Your task to perform on an android device: snooze an email in the gmail app Image 0: 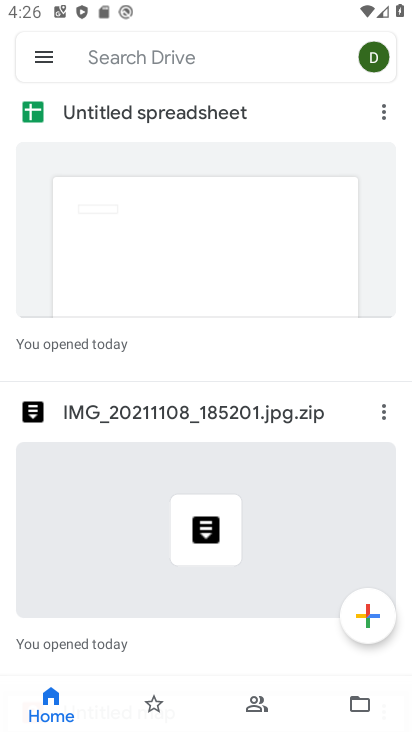
Step 0: press home button
Your task to perform on an android device: snooze an email in the gmail app Image 1: 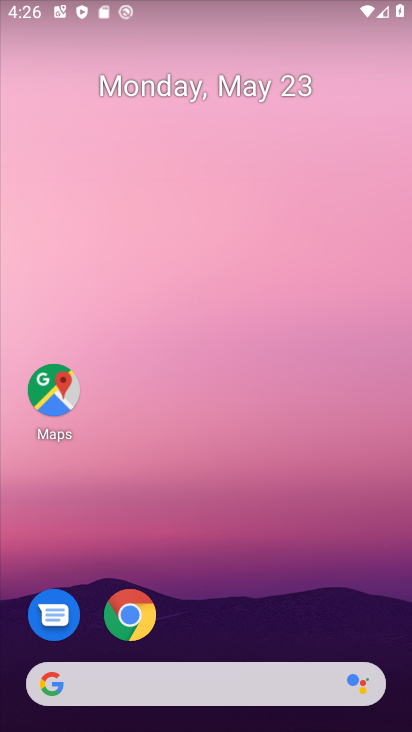
Step 1: drag from (238, 581) to (244, 138)
Your task to perform on an android device: snooze an email in the gmail app Image 2: 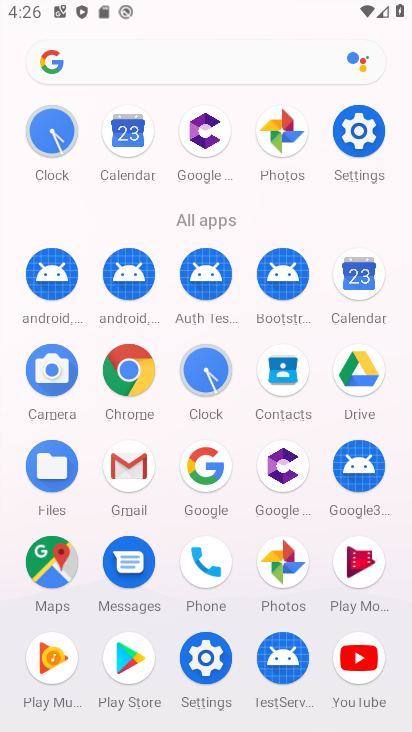
Step 2: click (131, 459)
Your task to perform on an android device: snooze an email in the gmail app Image 3: 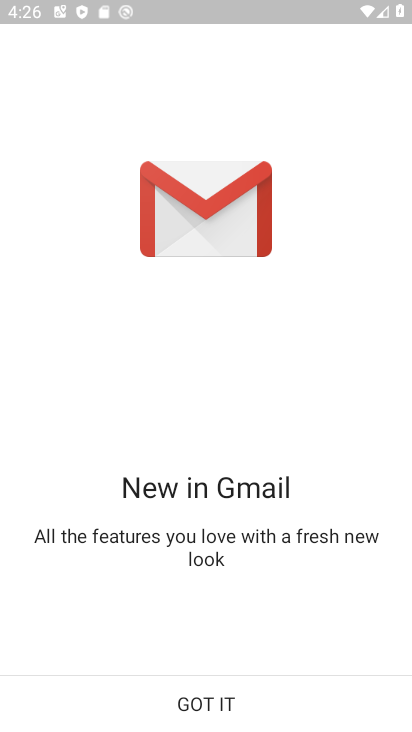
Step 3: click (229, 690)
Your task to perform on an android device: snooze an email in the gmail app Image 4: 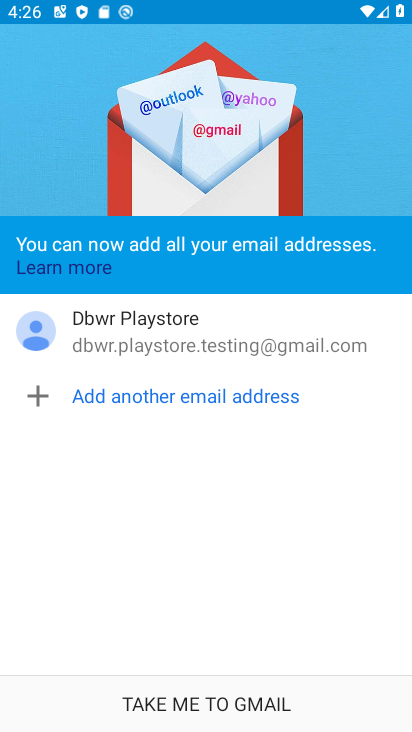
Step 4: click (229, 690)
Your task to perform on an android device: snooze an email in the gmail app Image 5: 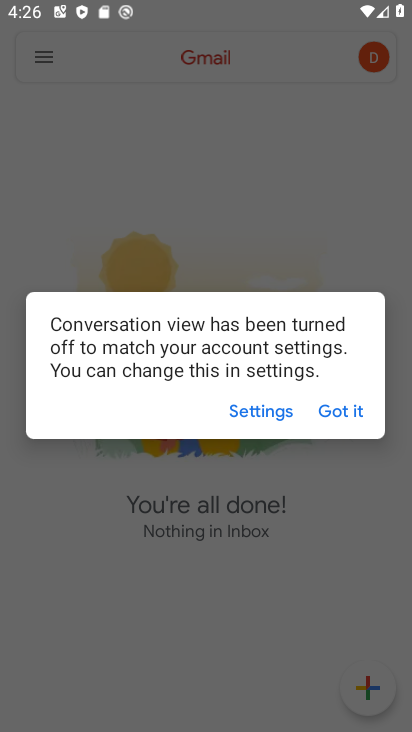
Step 5: click (350, 412)
Your task to perform on an android device: snooze an email in the gmail app Image 6: 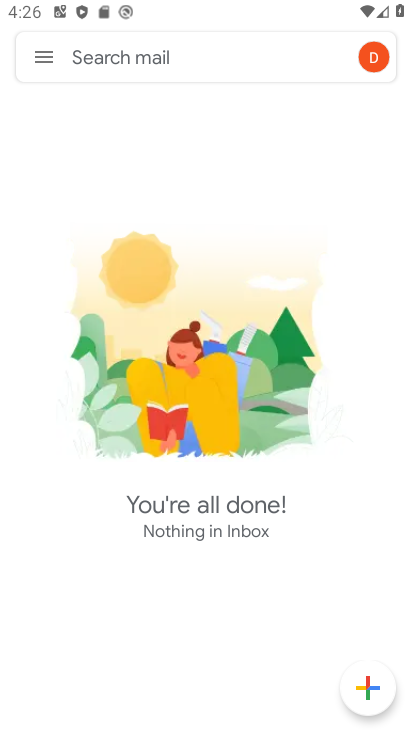
Step 6: task complete